Your task to perform on an android device: allow cookies in the chrome app Image 0: 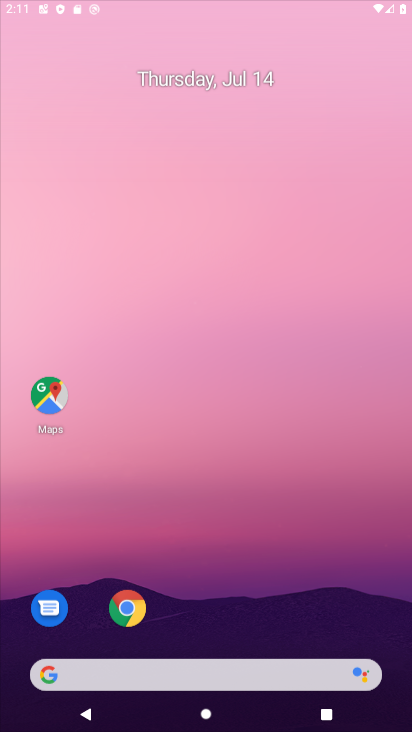
Step 0: click (134, 601)
Your task to perform on an android device: allow cookies in the chrome app Image 1: 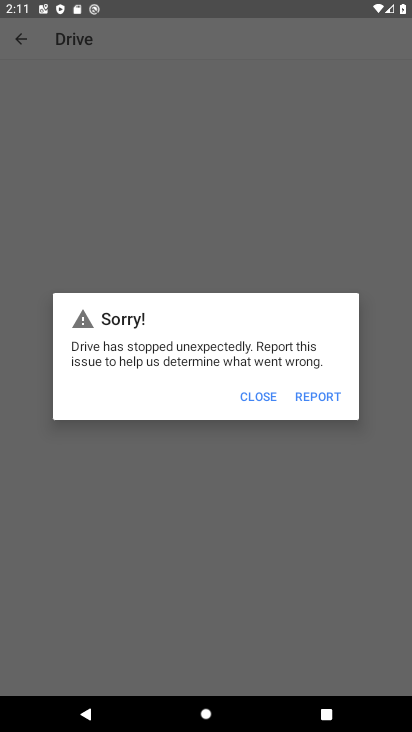
Step 1: click (131, 610)
Your task to perform on an android device: allow cookies in the chrome app Image 2: 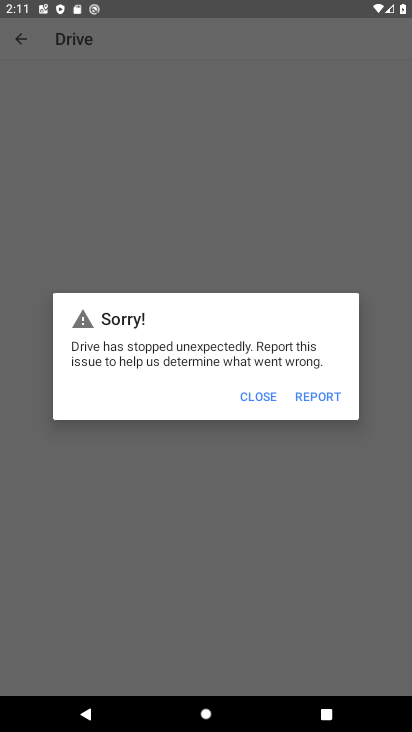
Step 2: click (228, 388)
Your task to perform on an android device: allow cookies in the chrome app Image 3: 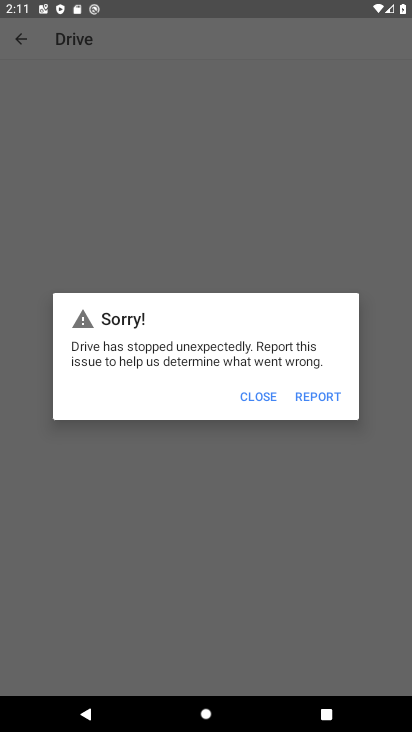
Step 3: click (250, 391)
Your task to perform on an android device: allow cookies in the chrome app Image 4: 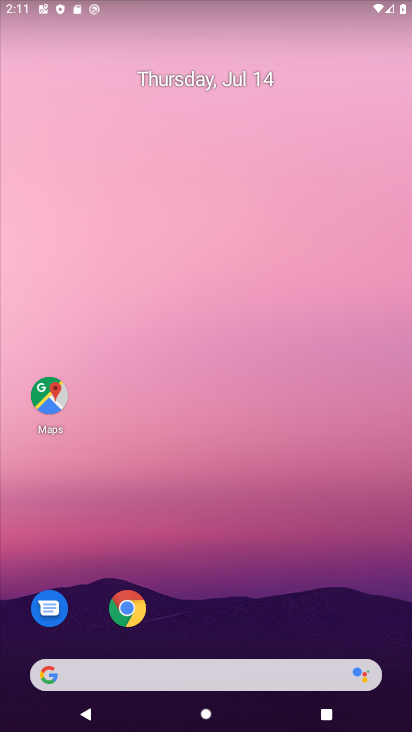
Step 4: click (121, 599)
Your task to perform on an android device: allow cookies in the chrome app Image 5: 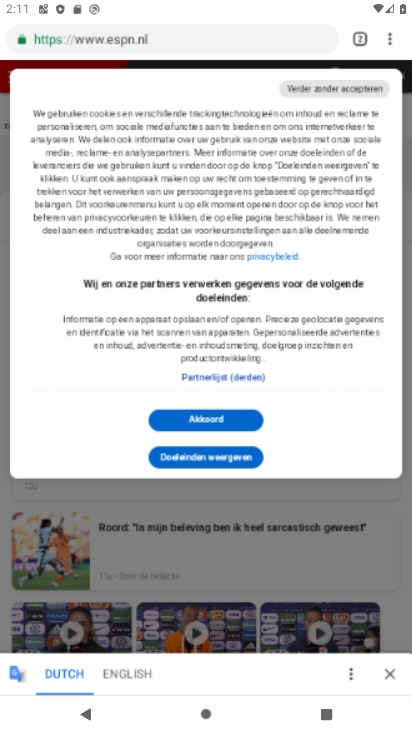
Step 5: drag from (390, 34) to (246, 472)
Your task to perform on an android device: allow cookies in the chrome app Image 6: 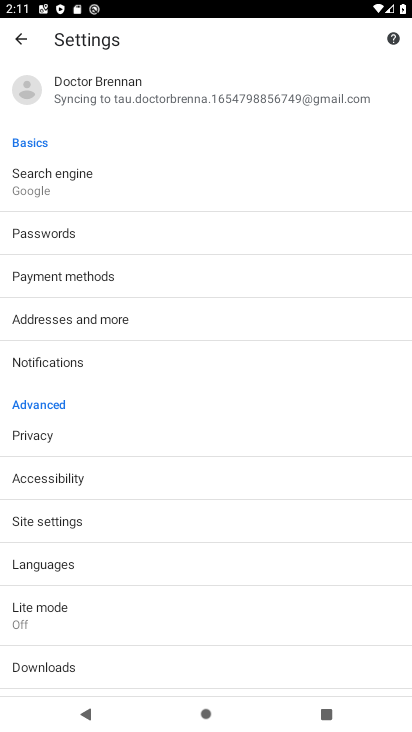
Step 6: click (49, 520)
Your task to perform on an android device: allow cookies in the chrome app Image 7: 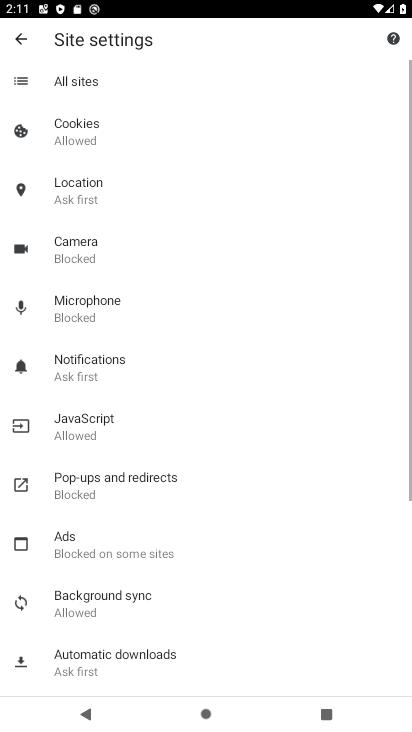
Step 7: click (92, 131)
Your task to perform on an android device: allow cookies in the chrome app Image 8: 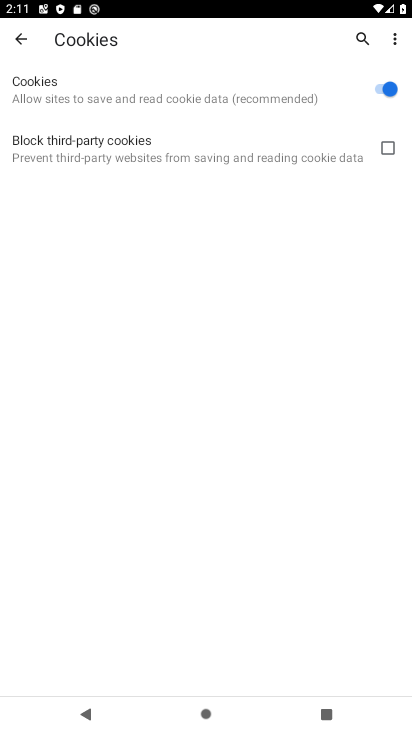
Step 8: task complete